Your task to perform on an android device: turn on notifications settings in the gmail app Image 0: 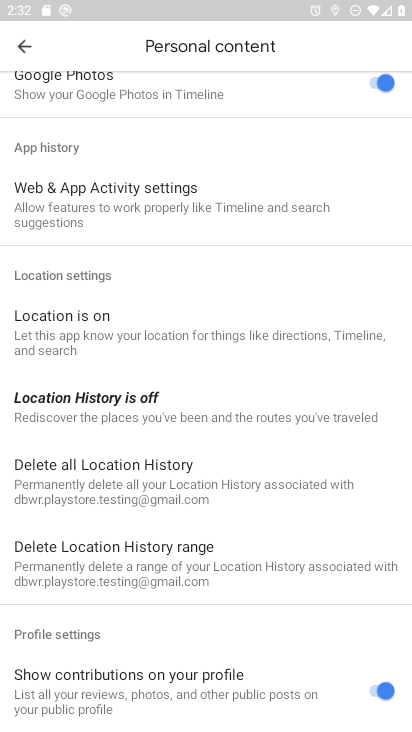
Step 0: press home button
Your task to perform on an android device: turn on notifications settings in the gmail app Image 1: 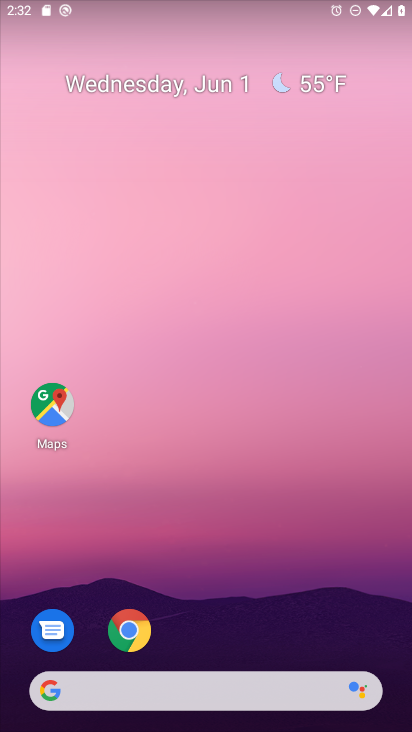
Step 1: drag from (129, 716) to (244, 3)
Your task to perform on an android device: turn on notifications settings in the gmail app Image 2: 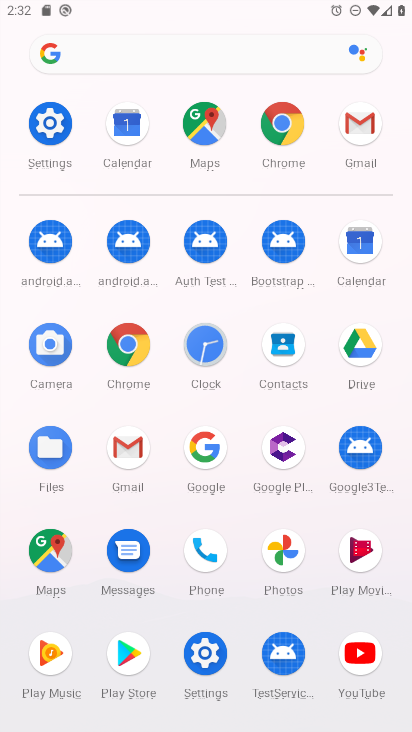
Step 2: click (128, 444)
Your task to perform on an android device: turn on notifications settings in the gmail app Image 3: 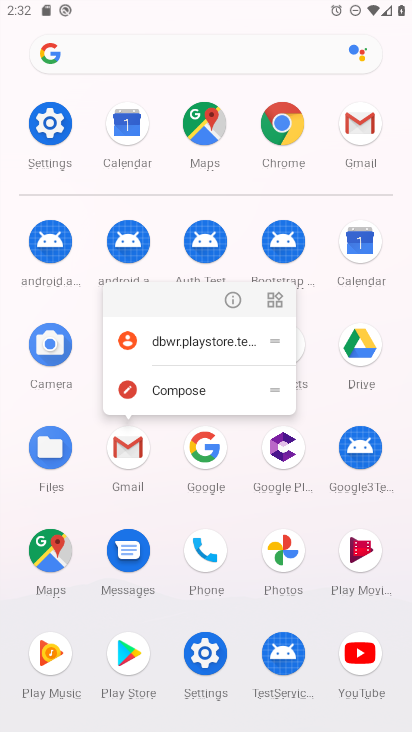
Step 3: click (128, 444)
Your task to perform on an android device: turn on notifications settings in the gmail app Image 4: 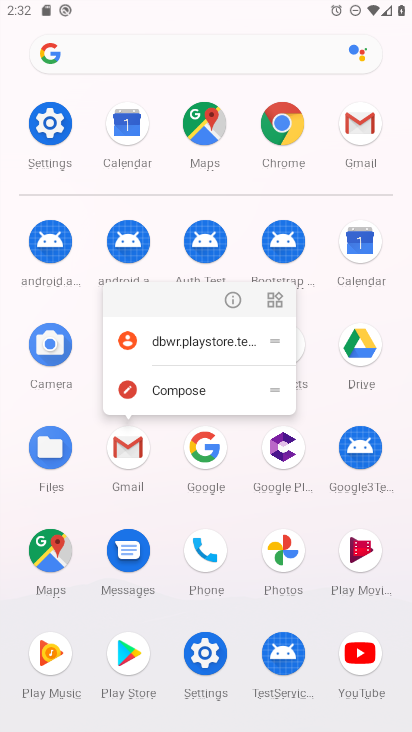
Step 4: click (122, 459)
Your task to perform on an android device: turn on notifications settings in the gmail app Image 5: 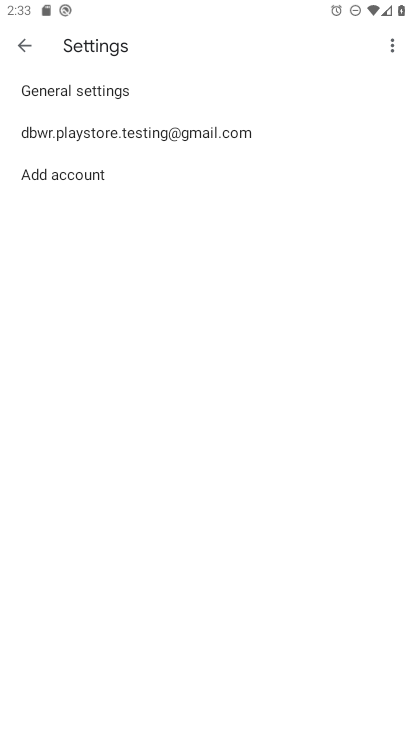
Step 5: click (240, 140)
Your task to perform on an android device: turn on notifications settings in the gmail app Image 6: 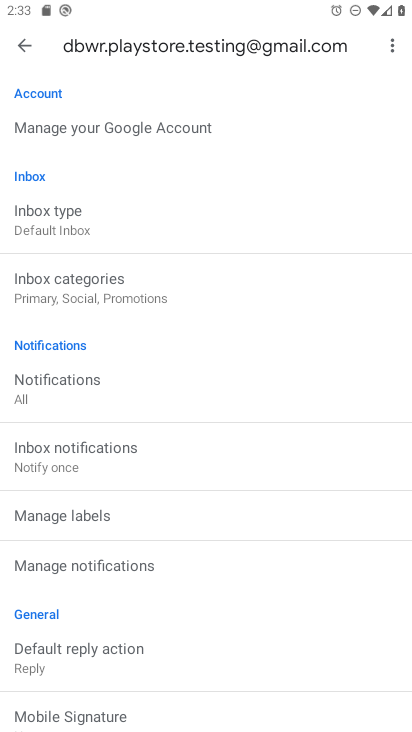
Step 6: click (113, 591)
Your task to perform on an android device: turn on notifications settings in the gmail app Image 7: 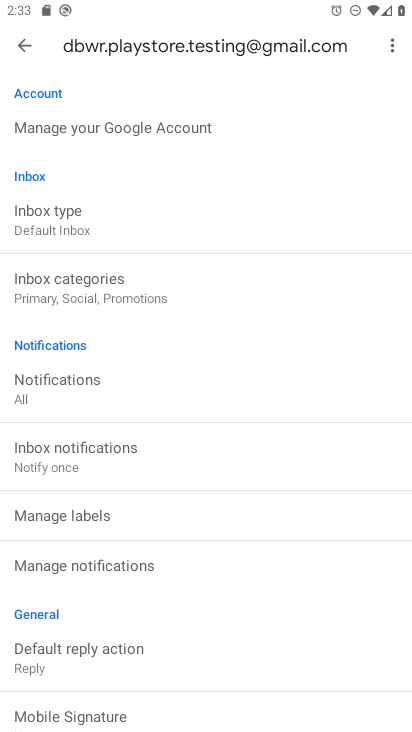
Step 7: click (111, 560)
Your task to perform on an android device: turn on notifications settings in the gmail app Image 8: 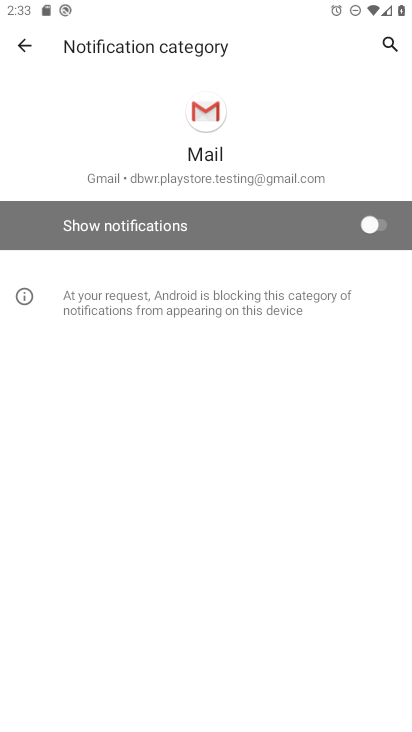
Step 8: click (381, 226)
Your task to perform on an android device: turn on notifications settings in the gmail app Image 9: 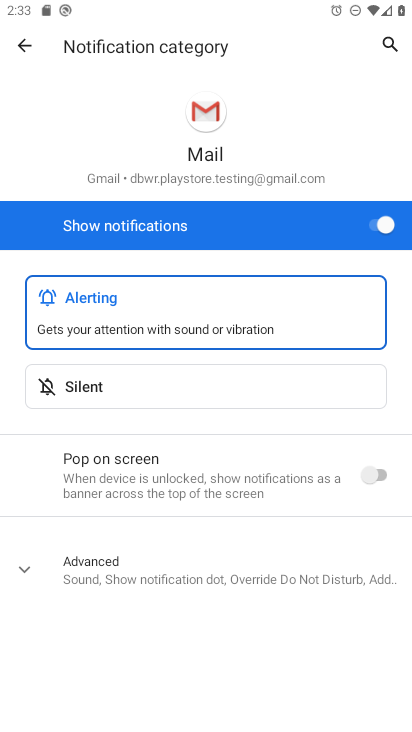
Step 9: task complete